Your task to perform on an android device: search for starred emails in the gmail app Image 0: 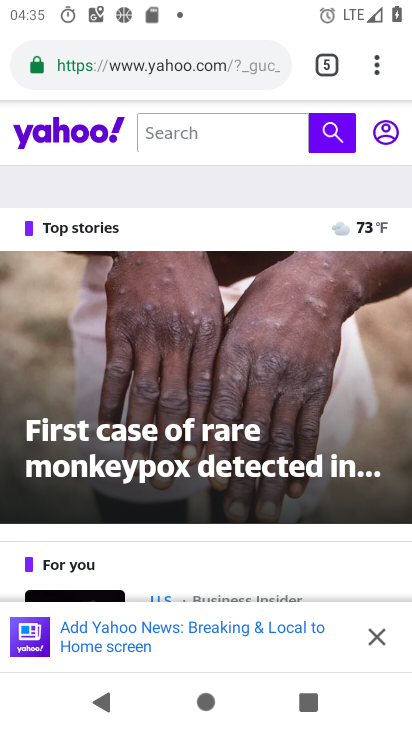
Step 0: press back button
Your task to perform on an android device: search for starred emails in the gmail app Image 1: 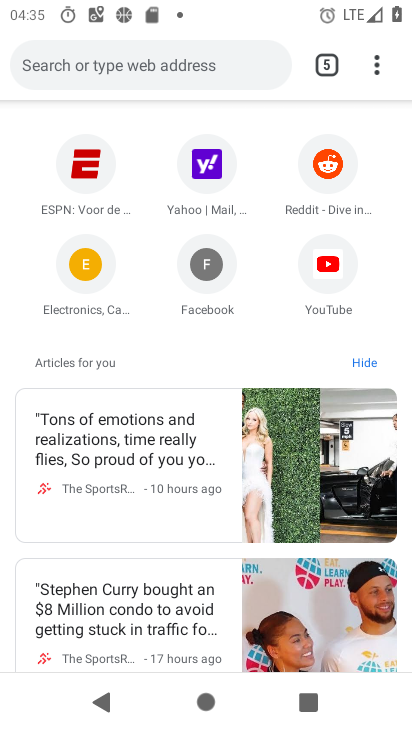
Step 1: press back button
Your task to perform on an android device: search for starred emails in the gmail app Image 2: 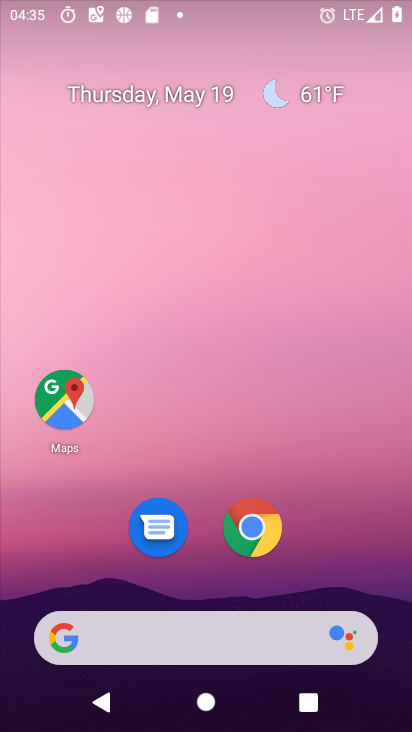
Step 2: drag from (156, 558) to (268, 66)
Your task to perform on an android device: search for starred emails in the gmail app Image 3: 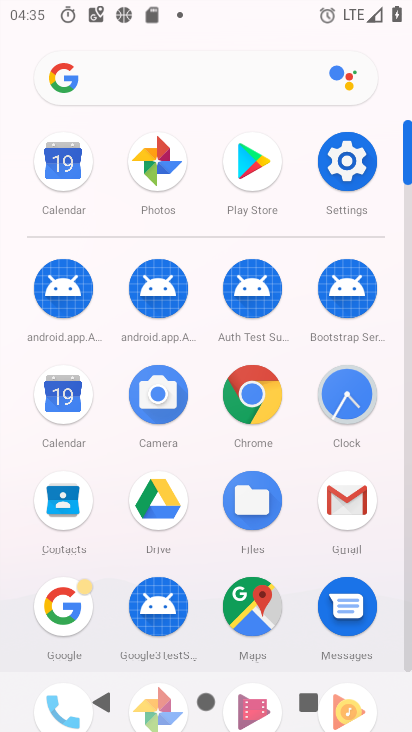
Step 3: click (350, 516)
Your task to perform on an android device: search for starred emails in the gmail app Image 4: 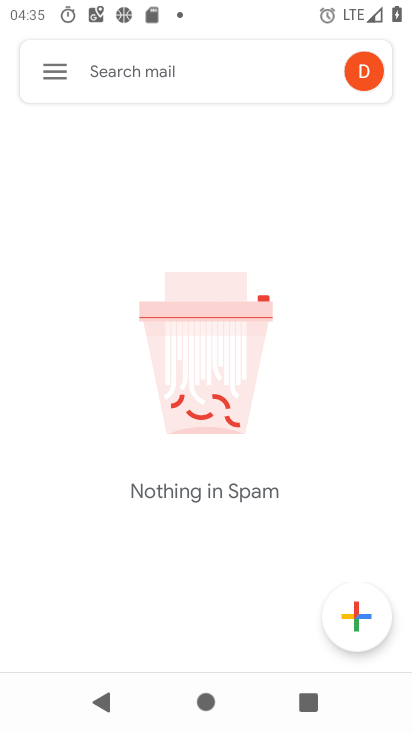
Step 4: click (62, 74)
Your task to perform on an android device: search for starred emails in the gmail app Image 5: 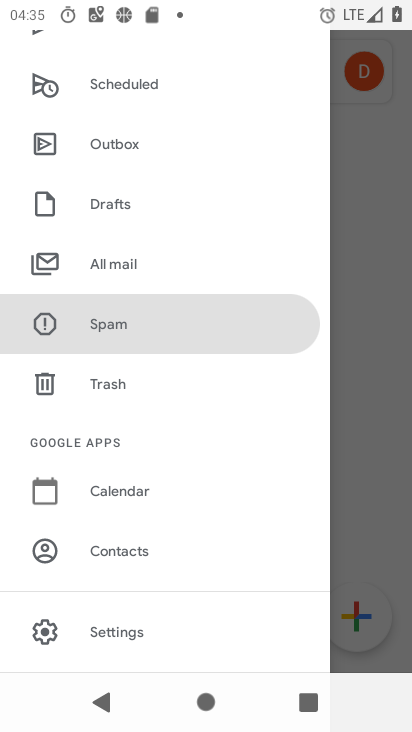
Step 5: drag from (138, 92) to (149, 453)
Your task to perform on an android device: search for starred emails in the gmail app Image 6: 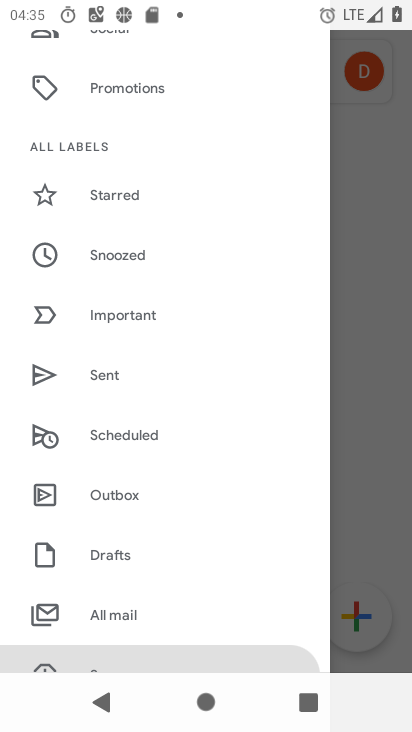
Step 6: click (122, 186)
Your task to perform on an android device: search for starred emails in the gmail app Image 7: 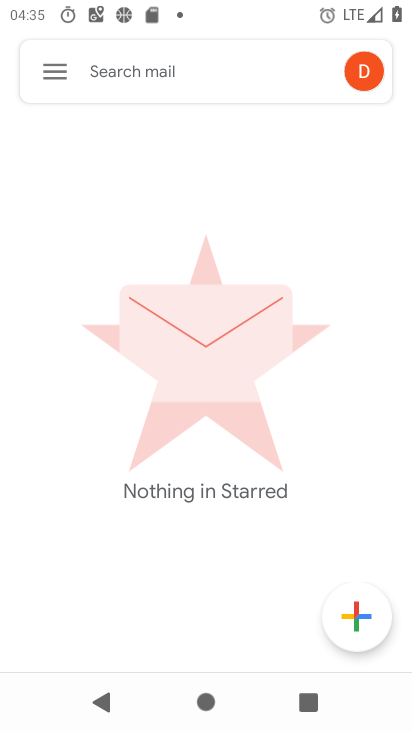
Step 7: task complete